Your task to perform on an android device: Clear the cart on amazon.com. Image 0: 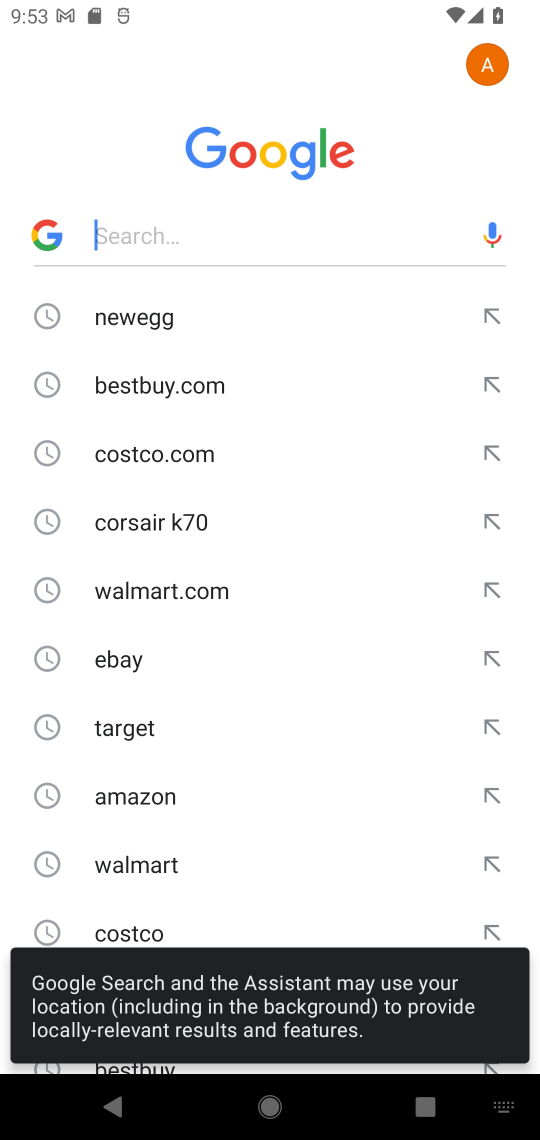
Step 0: press home button
Your task to perform on an android device: Clear the cart on amazon.com. Image 1: 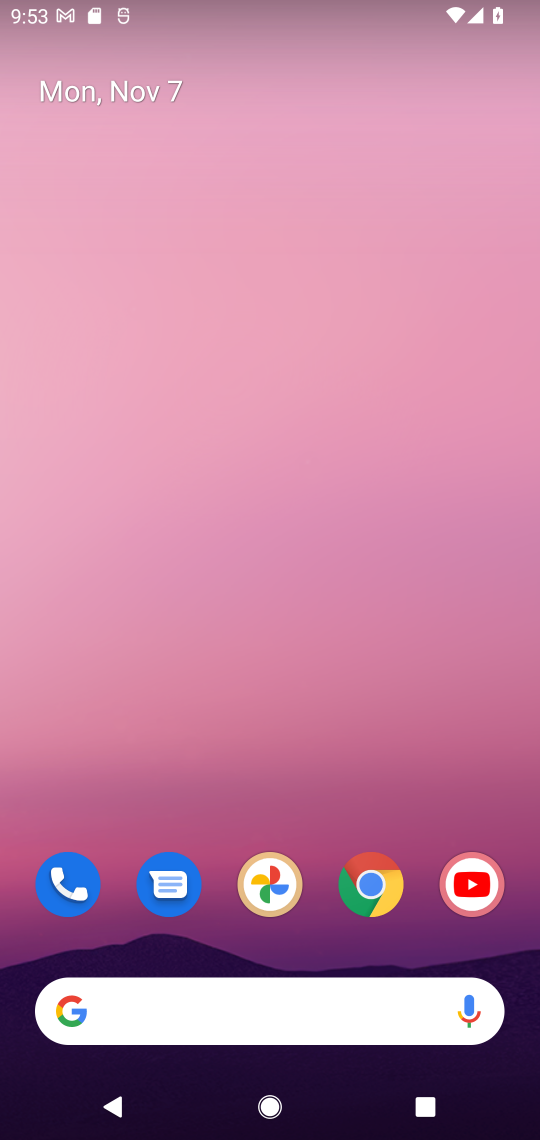
Step 1: click (373, 871)
Your task to perform on an android device: Clear the cart on amazon.com. Image 2: 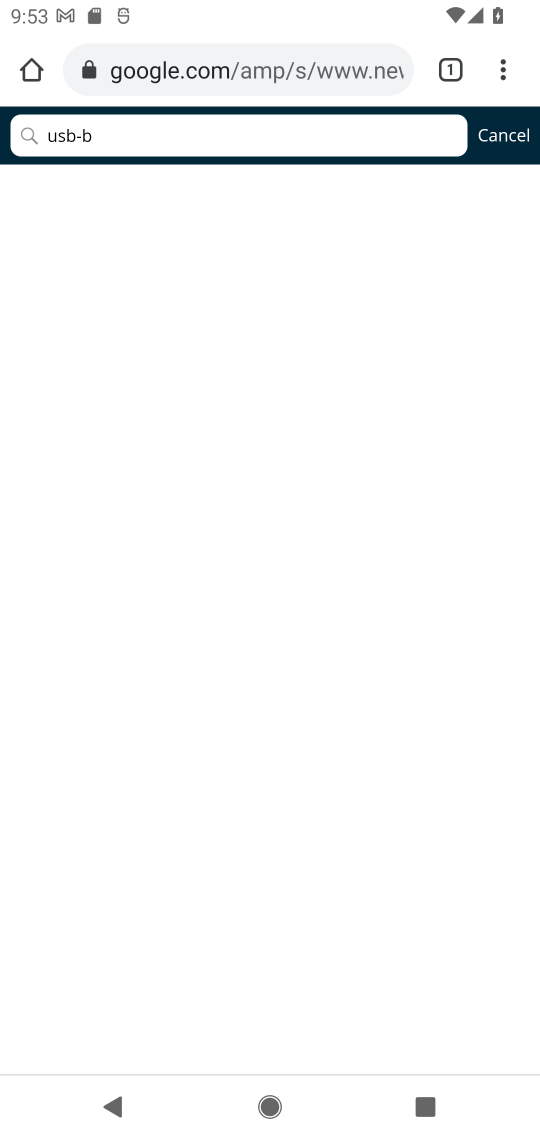
Step 2: click (36, 80)
Your task to perform on an android device: Clear the cart on amazon.com. Image 3: 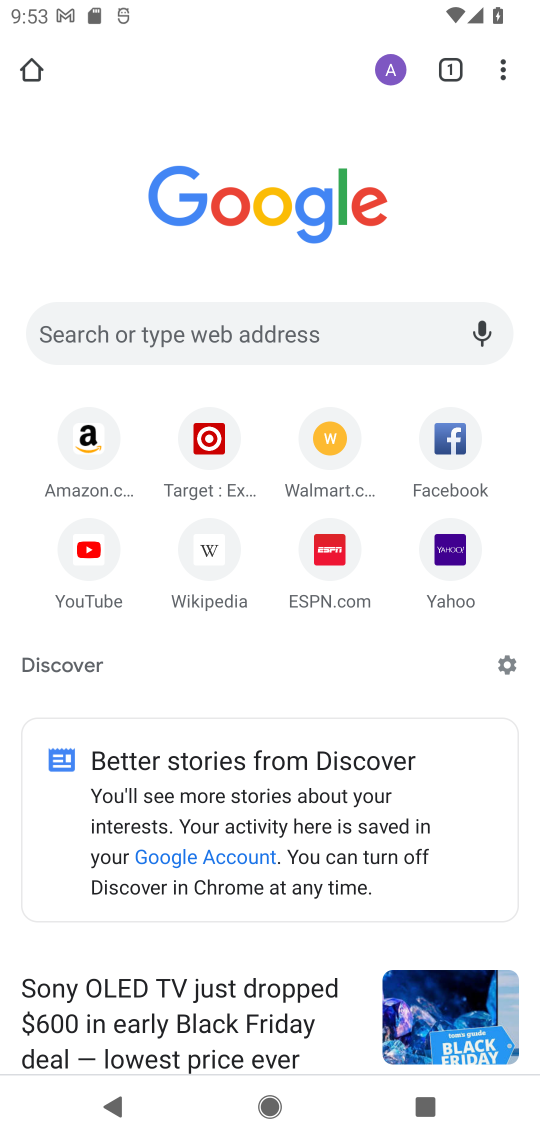
Step 3: click (70, 425)
Your task to perform on an android device: Clear the cart on amazon.com. Image 4: 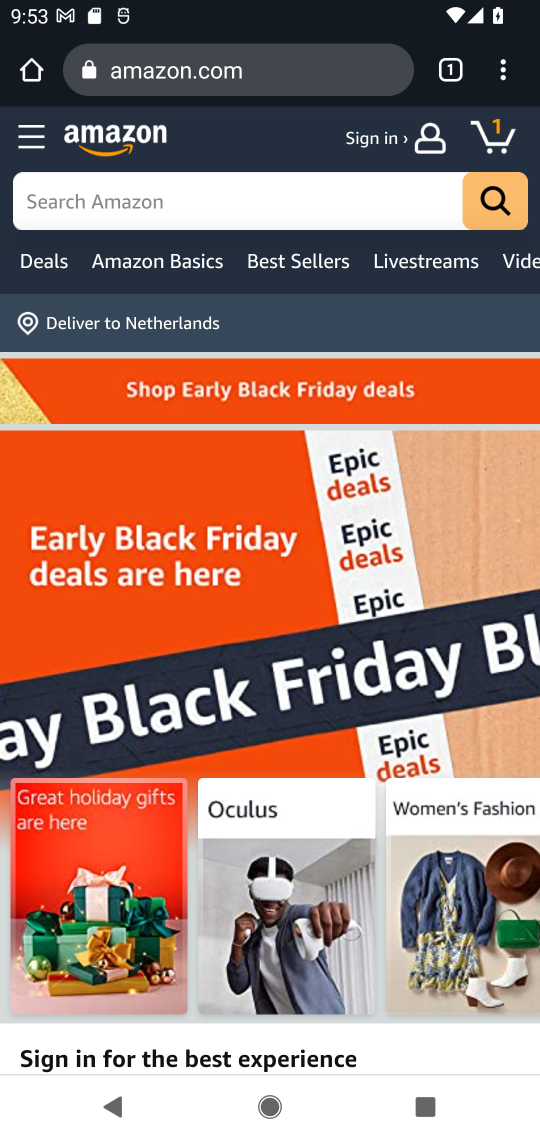
Step 4: click (491, 119)
Your task to perform on an android device: Clear the cart on amazon.com. Image 5: 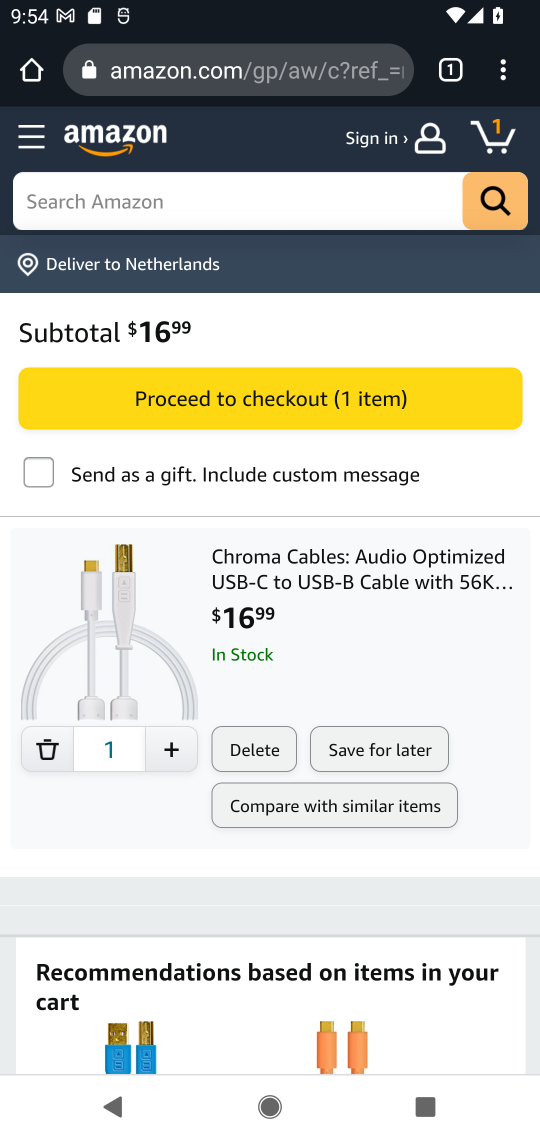
Step 5: click (268, 752)
Your task to perform on an android device: Clear the cart on amazon.com. Image 6: 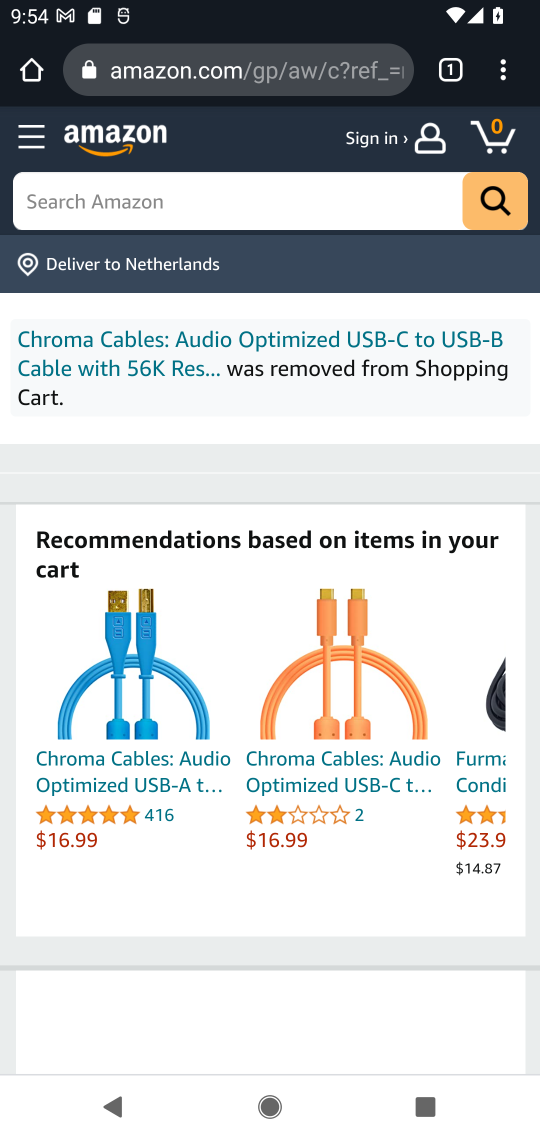
Step 6: task complete